Your task to perform on an android device: see sites visited before in the chrome app Image 0: 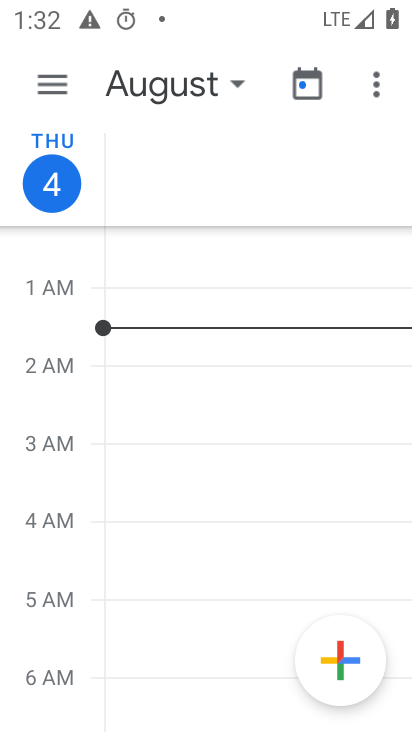
Step 0: press home button
Your task to perform on an android device: see sites visited before in the chrome app Image 1: 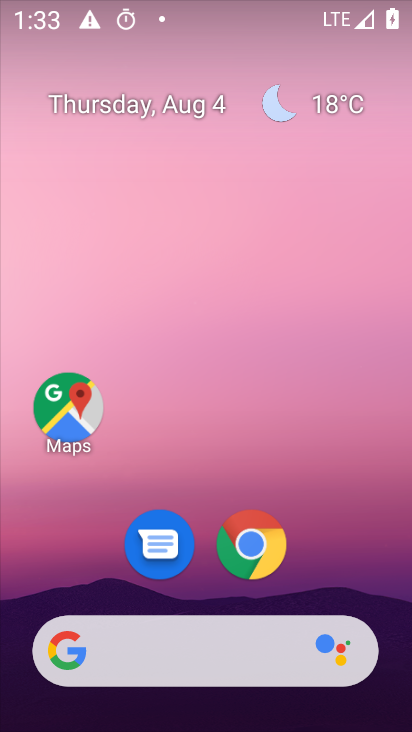
Step 1: click (259, 540)
Your task to perform on an android device: see sites visited before in the chrome app Image 2: 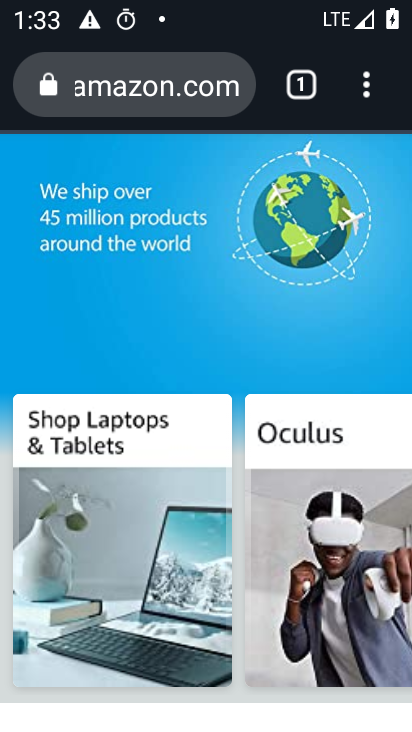
Step 2: click (366, 89)
Your task to perform on an android device: see sites visited before in the chrome app Image 3: 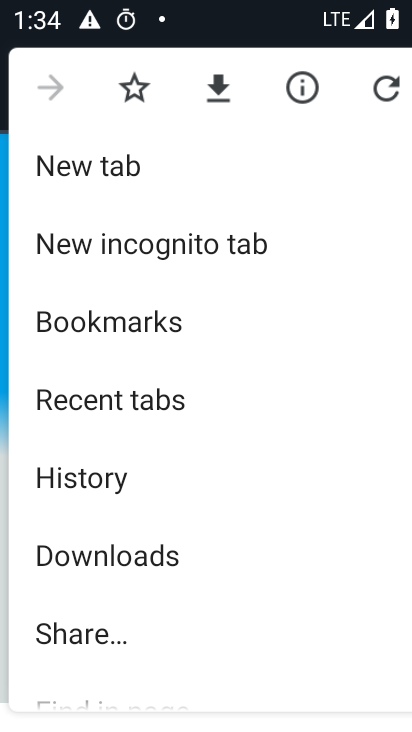
Step 3: drag from (208, 622) to (185, 310)
Your task to perform on an android device: see sites visited before in the chrome app Image 4: 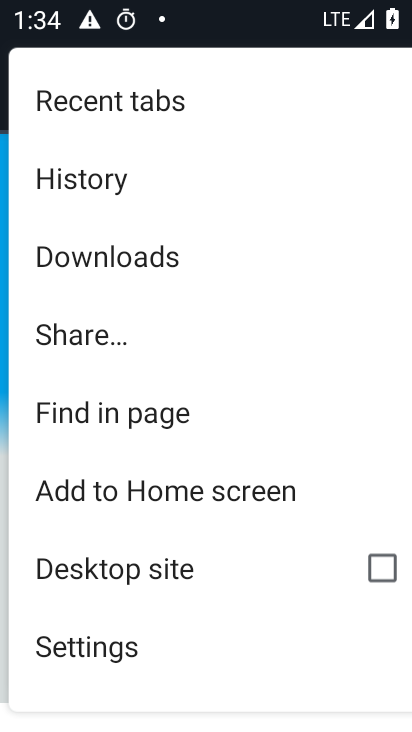
Step 4: click (88, 106)
Your task to perform on an android device: see sites visited before in the chrome app Image 5: 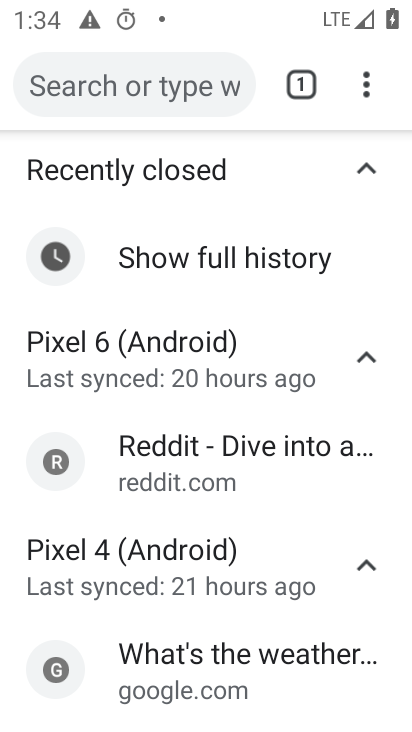
Step 5: task complete